Your task to perform on an android device: Open calendar and show me the first week of next month Image 0: 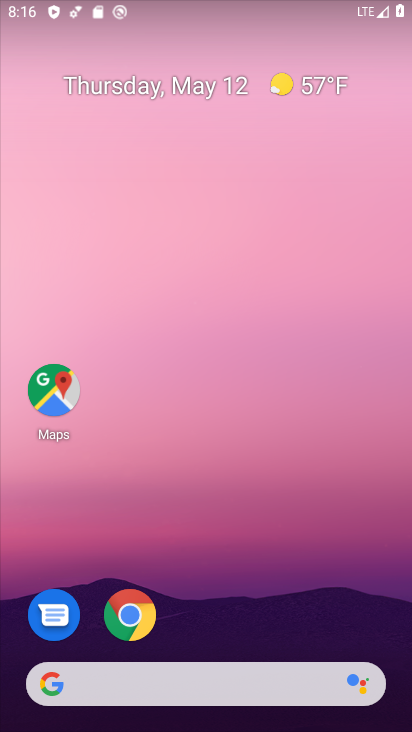
Step 0: drag from (241, 559) to (235, 47)
Your task to perform on an android device: Open calendar and show me the first week of next month Image 1: 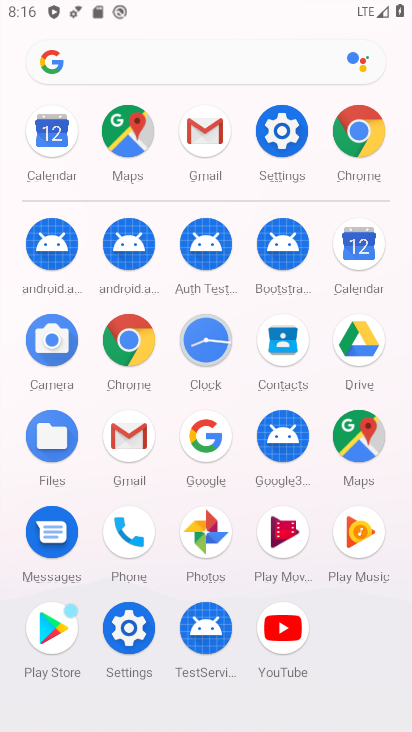
Step 1: drag from (11, 490) to (16, 237)
Your task to perform on an android device: Open calendar and show me the first week of next month Image 2: 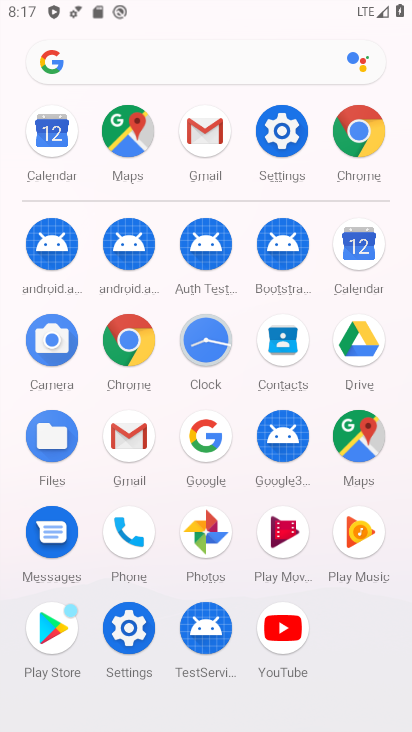
Step 2: click (362, 243)
Your task to perform on an android device: Open calendar and show me the first week of next month Image 3: 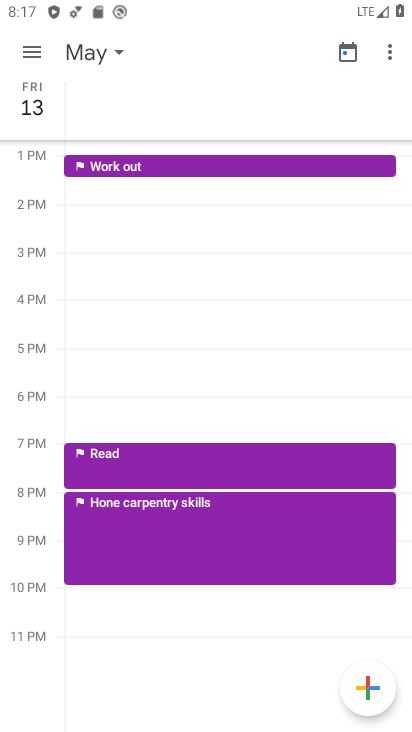
Step 3: click (87, 47)
Your task to perform on an android device: Open calendar and show me the first week of next month Image 4: 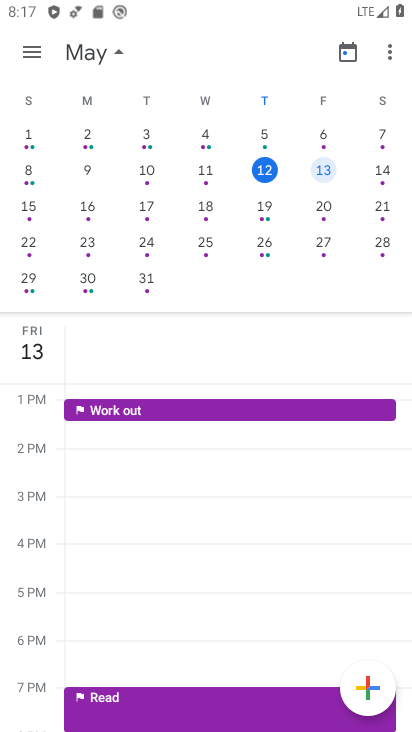
Step 4: drag from (364, 233) to (1, 190)
Your task to perform on an android device: Open calendar and show me the first week of next month Image 5: 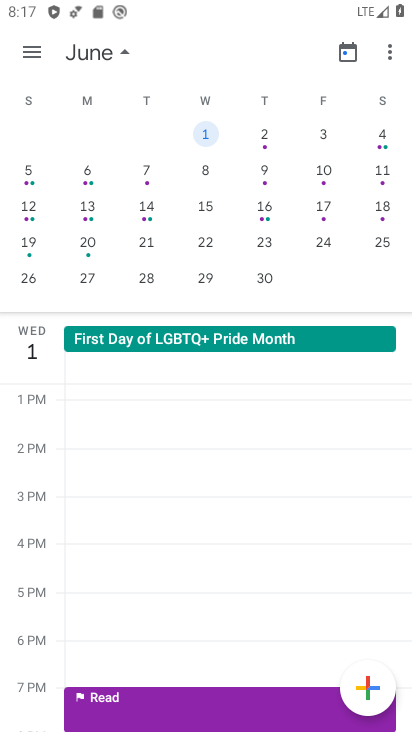
Step 5: click (206, 127)
Your task to perform on an android device: Open calendar and show me the first week of next month Image 6: 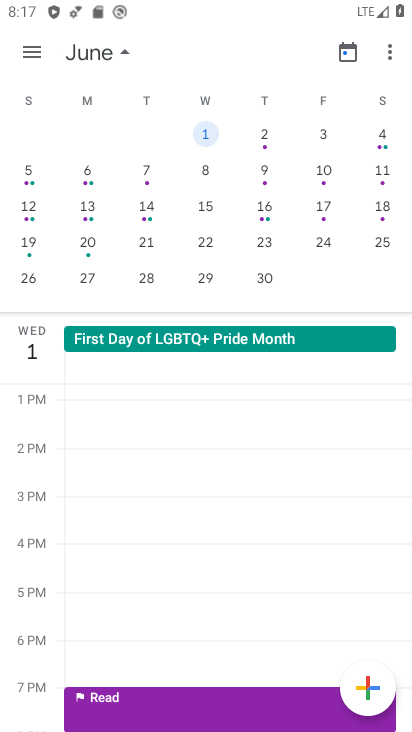
Step 6: click (24, 46)
Your task to perform on an android device: Open calendar and show me the first week of next month Image 7: 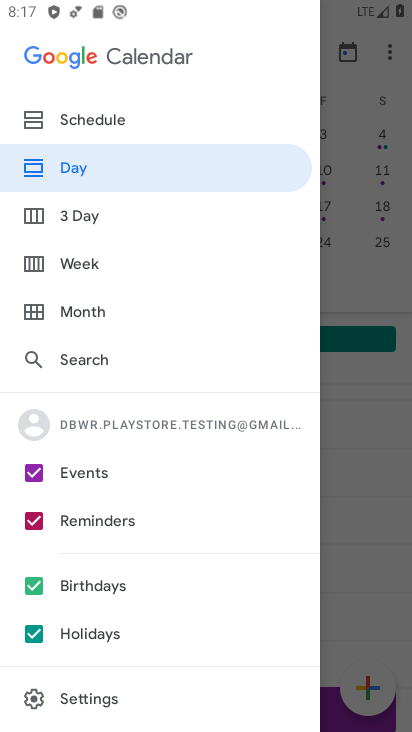
Step 7: click (90, 265)
Your task to perform on an android device: Open calendar and show me the first week of next month Image 8: 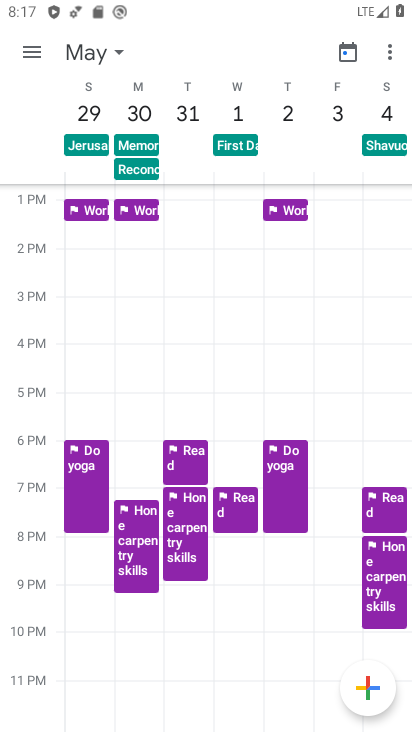
Step 8: task complete